Your task to perform on an android device: Open Reddit.com Image 0: 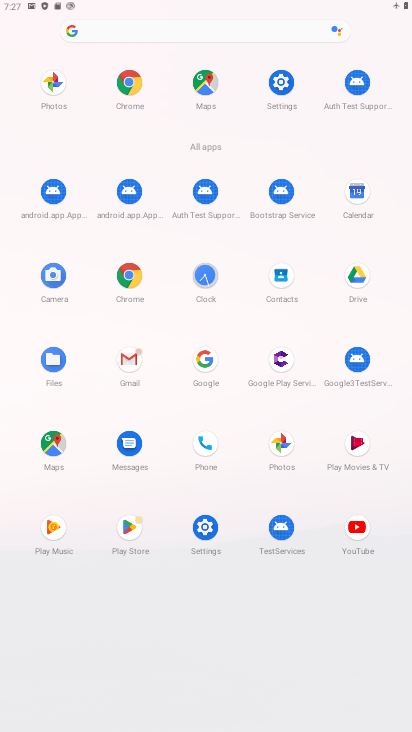
Step 0: click (122, 85)
Your task to perform on an android device: Open Reddit.com Image 1: 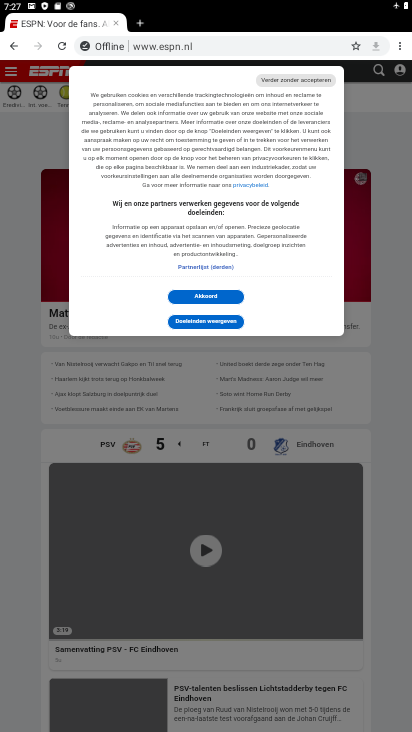
Step 1: click (18, 43)
Your task to perform on an android device: Open Reddit.com Image 2: 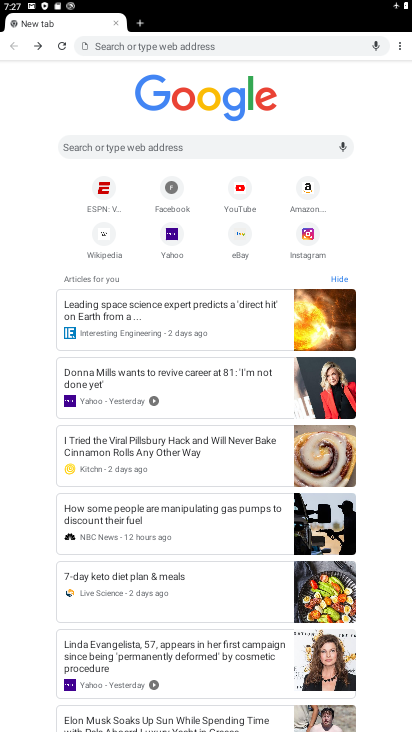
Step 2: click (195, 156)
Your task to perform on an android device: Open Reddit.com Image 3: 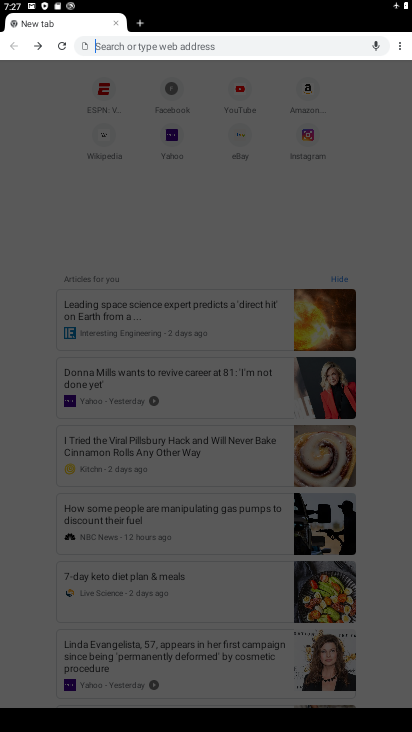
Step 3: type "Reddit.com"
Your task to perform on an android device: Open Reddit.com Image 4: 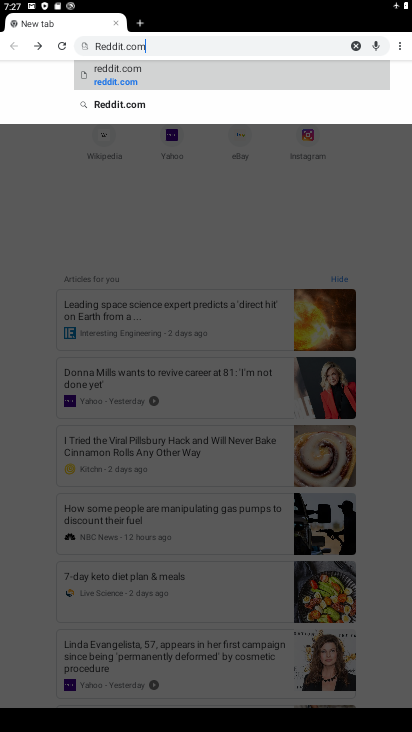
Step 4: press enter
Your task to perform on an android device: Open Reddit.com Image 5: 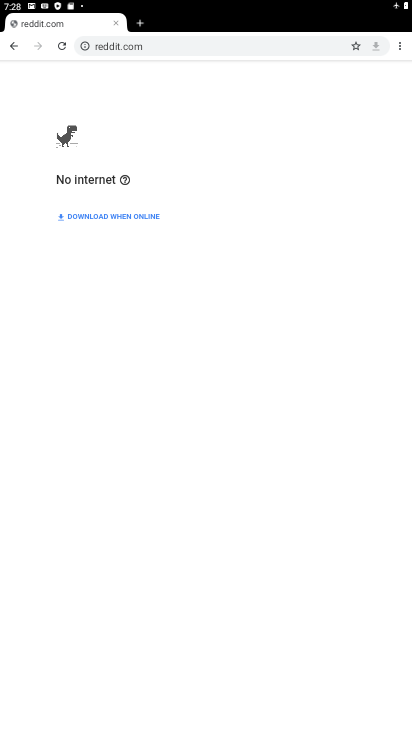
Step 5: task complete